Your task to perform on an android device: Open Reddit.com Image 0: 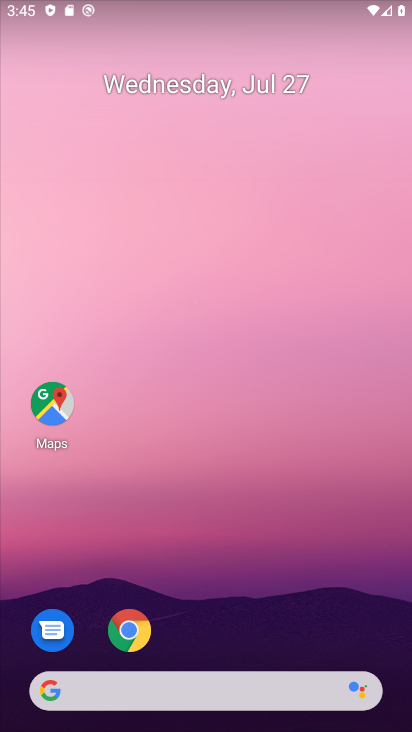
Step 0: press home button
Your task to perform on an android device: Open Reddit.com Image 1: 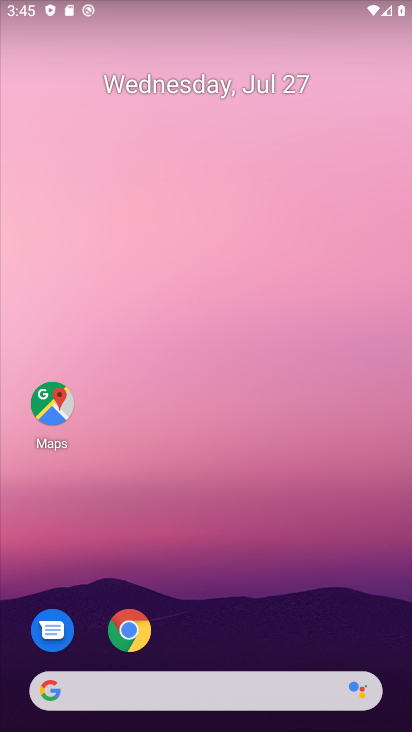
Step 1: click (128, 626)
Your task to perform on an android device: Open Reddit.com Image 2: 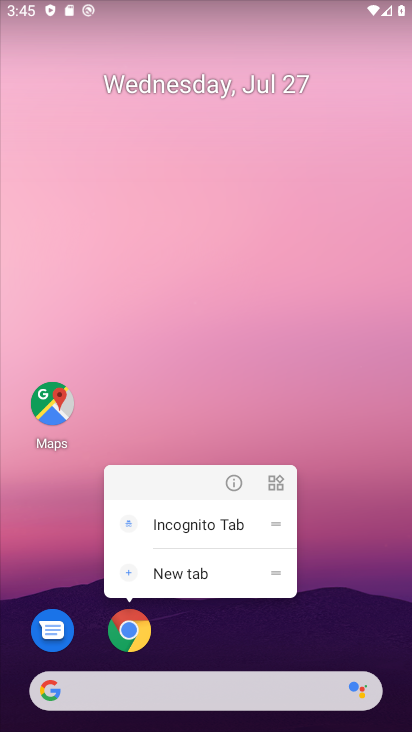
Step 2: click (129, 624)
Your task to perform on an android device: Open Reddit.com Image 3: 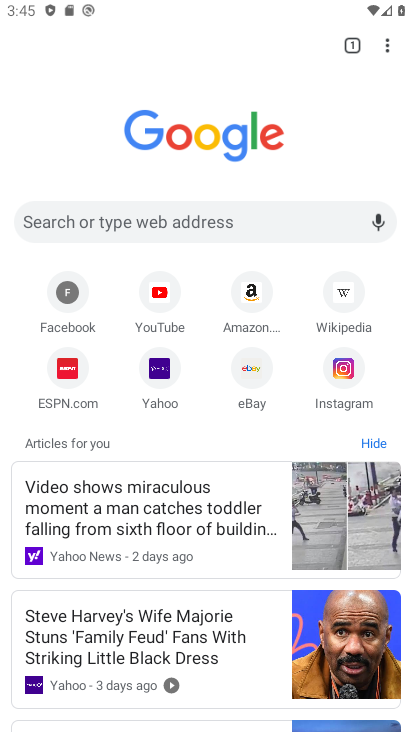
Step 3: click (110, 214)
Your task to perform on an android device: Open Reddit.com Image 4: 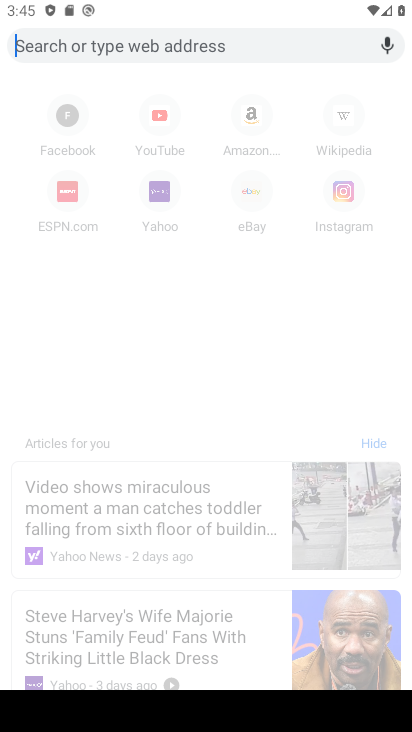
Step 4: type "reddit.com"
Your task to perform on an android device: Open Reddit.com Image 5: 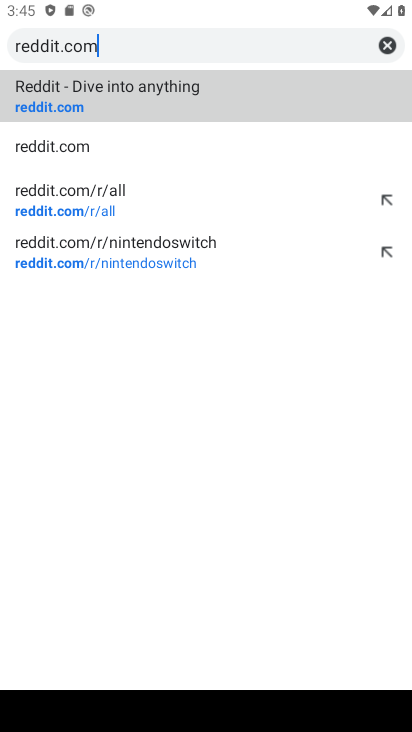
Step 5: click (91, 104)
Your task to perform on an android device: Open Reddit.com Image 6: 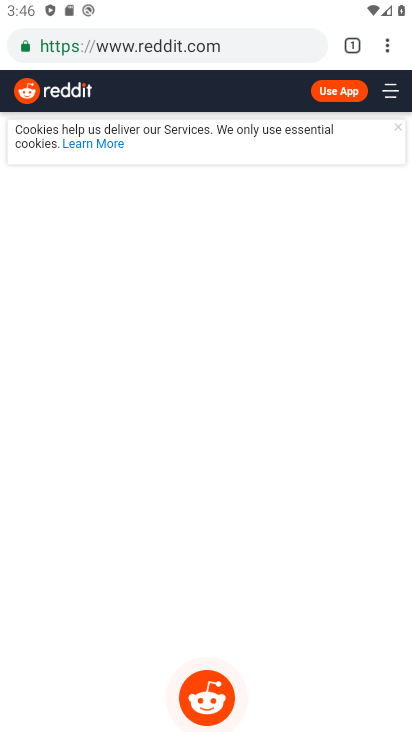
Step 6: task complete